Your task to perform on an android device: Go to calendar. Show me events next week Image 0: 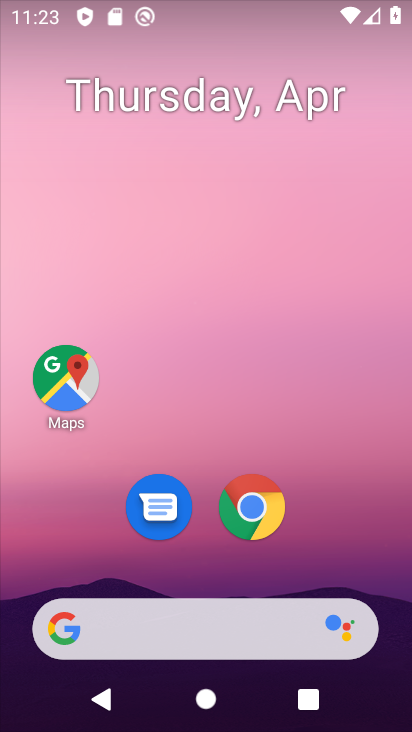
Step 0: drag from (216, 721) to (215, 102)
Your task to perform on an android device: Go to calendar. Show me events next week Image 1: 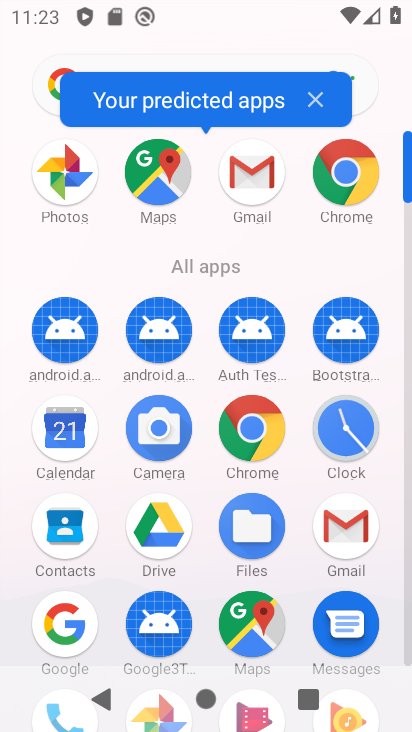
Step 1: click (63, 429)
Your task to perform on an android device: Go to calendar. Show me events next week Image 2: 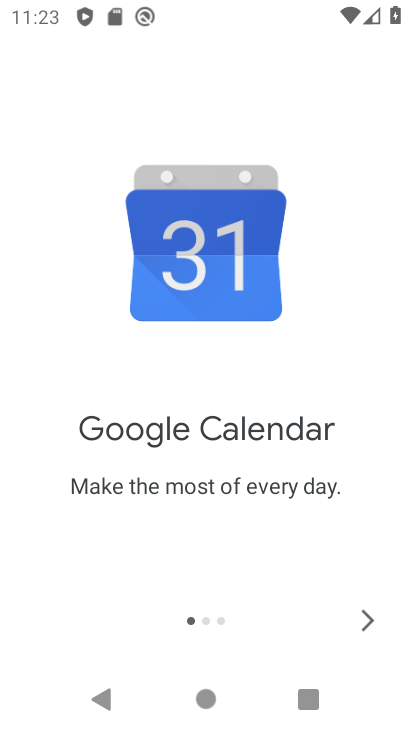
Step 2: click (363, 616)
Your task to perform on an android device: Go to calendar. Show me events next week Image 3: 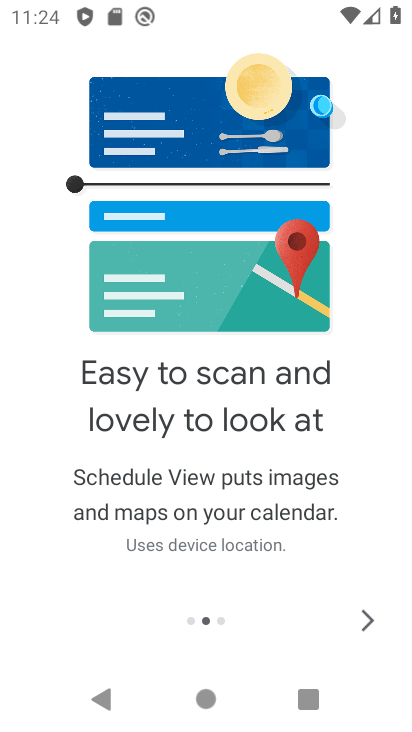
Step 3: click (363, 616)
Your task to perform on an android device: Go to calendar. Show me events next week Image 4: 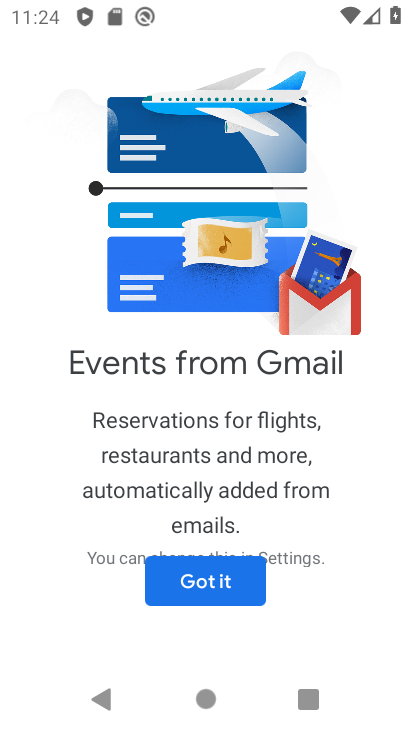
Step 4: click (222, 577)
Your task to perform on an android device: Go to calendar. Show me events next week Image 5: 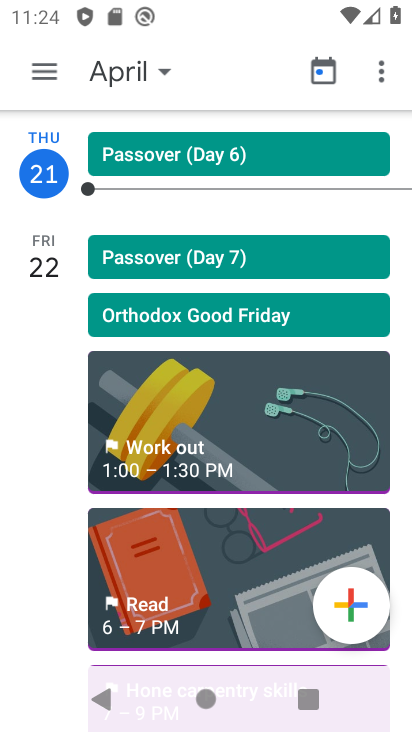
Step 5: click (41, 76)
Your task to perform on an android device: Go to calendar. Show me events next week Image 6: 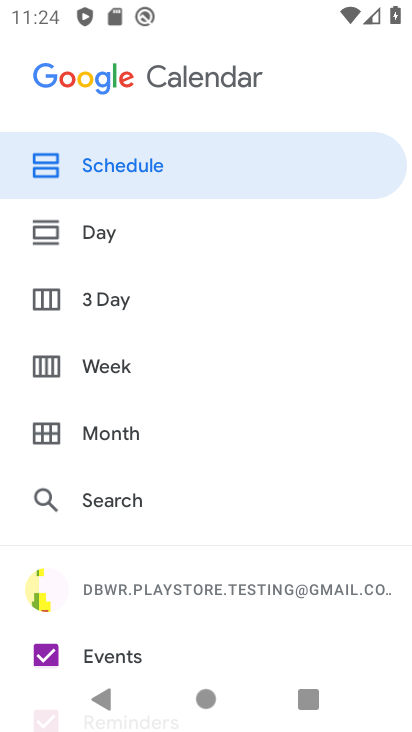
Step 6: drag from (160, 645) to (173, 286)
Your task to perform on an android device: Go to calendar. Show me events next week Image 7: 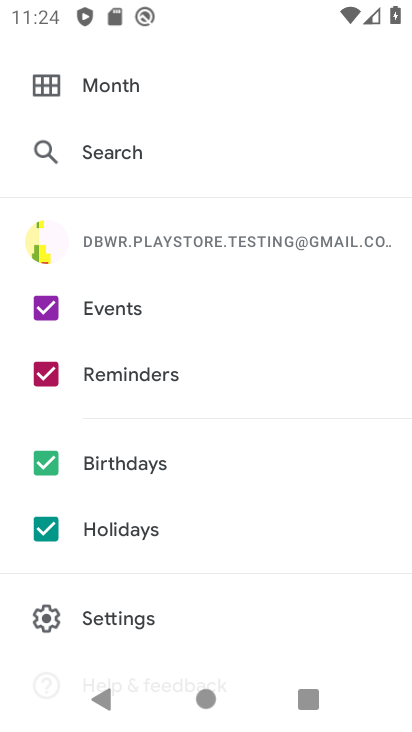
Step 7: click (49, 529)
Your task to perform on an android device: Go to calendar. Show me events next week Image 8: 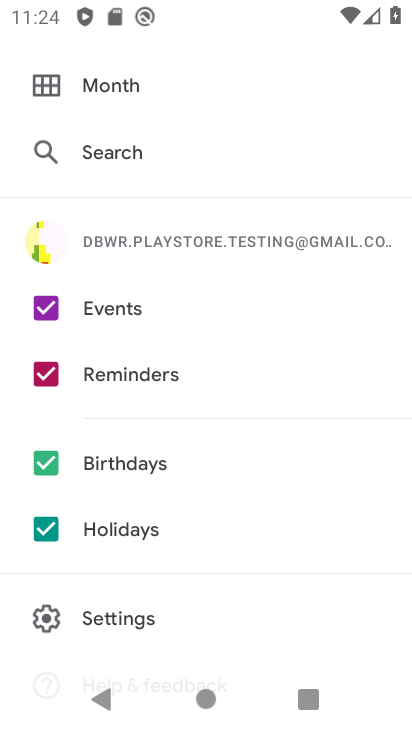
Step 8: click (44, 530)
Your task to perform on an android device: Go to calendar. Show me events next week Image 9: 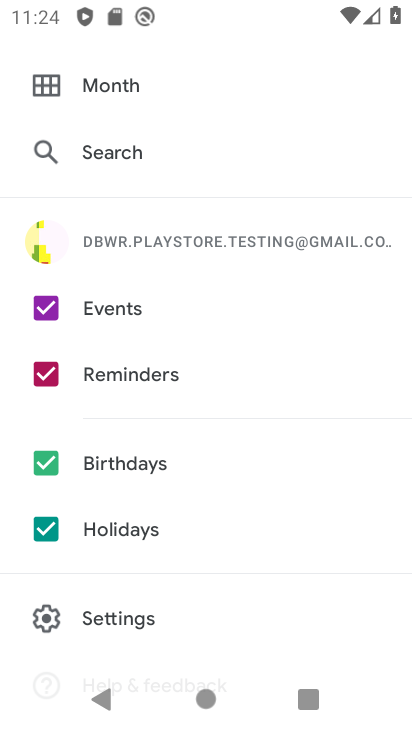
Step 9: click (48, 462)
Your task to perform on an android device: Go to calendar. Show me events next week Image 10: 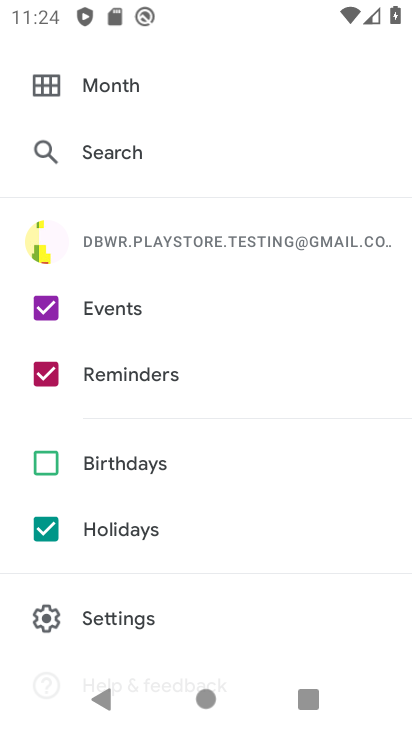
Step 10: click (43, 532)
Your task to perform on an android device: Go to calendar. Show me events next week Image 11: 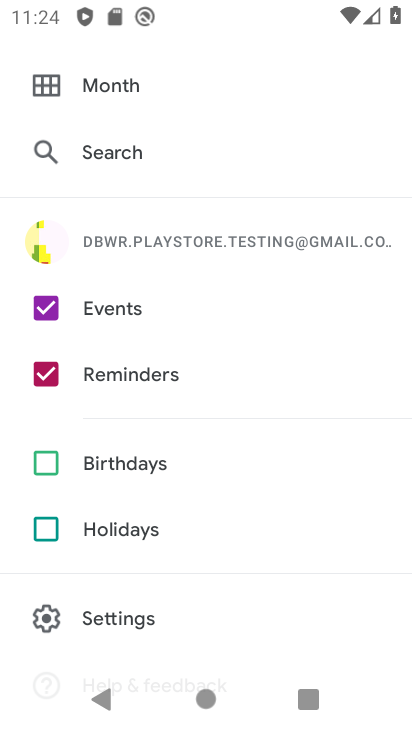
Step 11: click (41, 362)
Your task to perform on an android device: Go to calendar. Show me events next week Image 12: 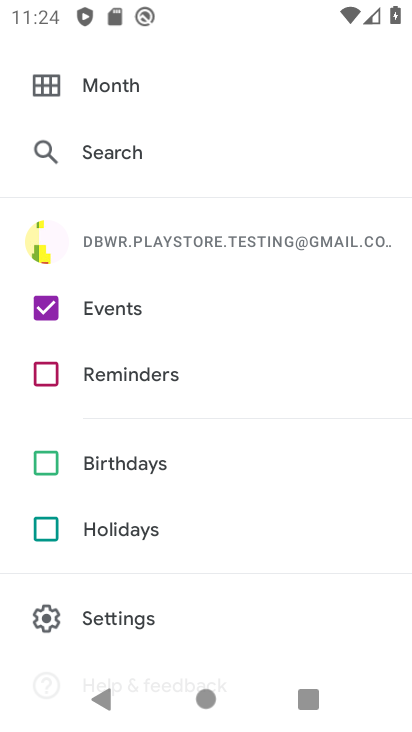
Step 12: drag from (219, 128) to (207, 590)
Your task to perform on an android device: Go to calendar. Show me events next week Image 13: 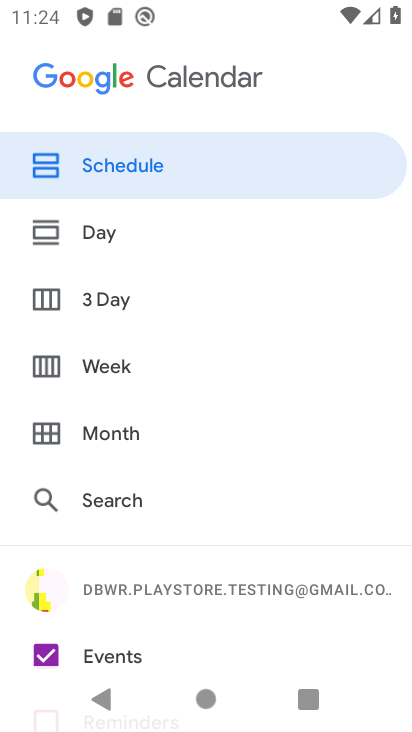
Step 13: click (114, 362)
Your task to perform on an android device: Go to calendar. Show me events next week Image 14: 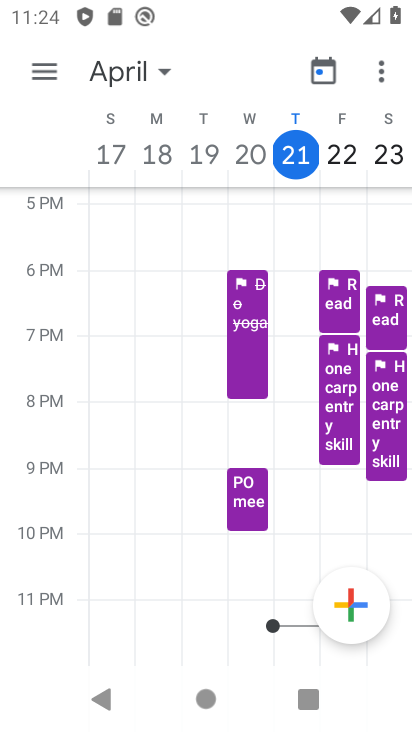
Step 14: task complete